Your task to perform on an android device: install app "NewsBreak: Local News & Alerts" Image 0: 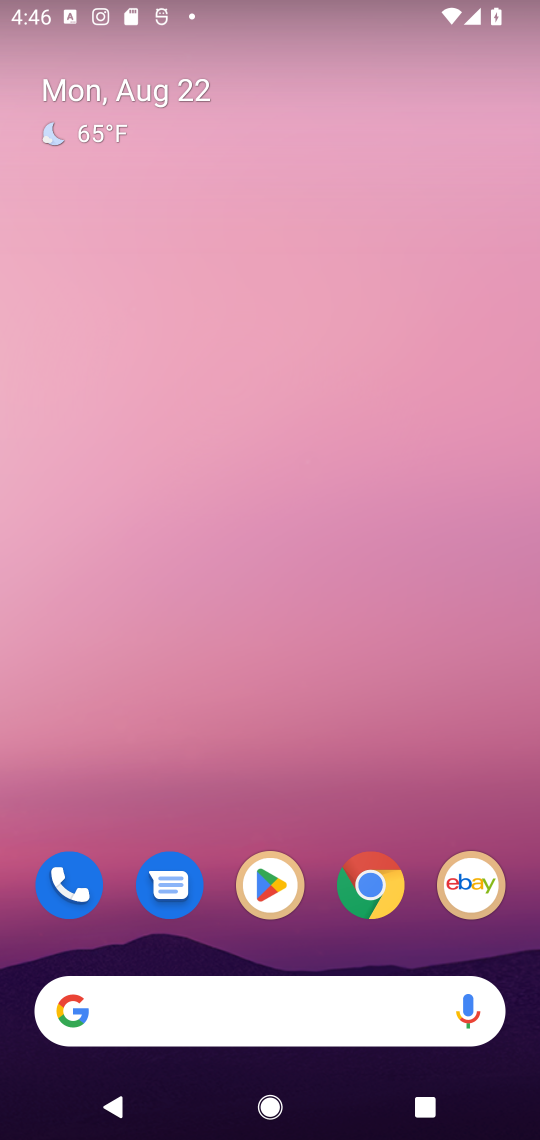
Step 0: press home button
Your task to perform on an android device: install app "NewsBreak: Local News & Alerts" Image 1: 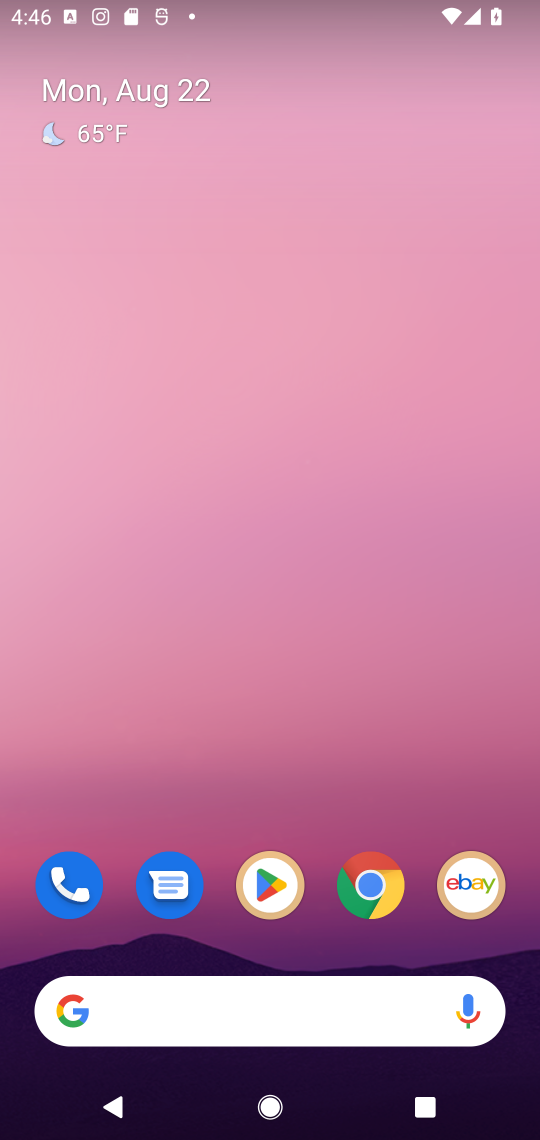
Step 1: click (268, 876)
Your task to perform on an android device: install app "NewsBreak: Local News & Alerts" Image 2: 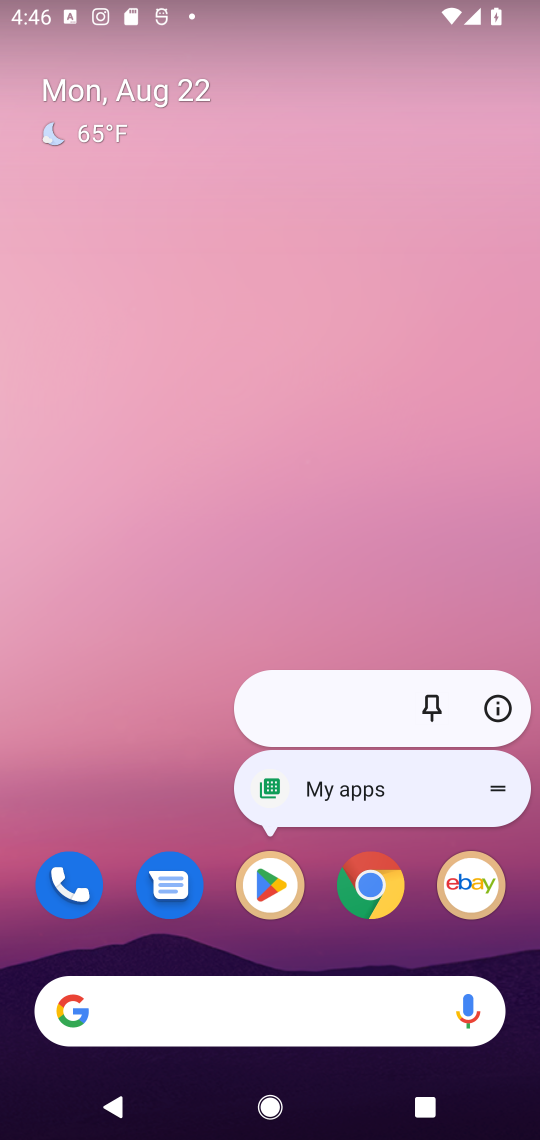
Step 2: click (268, 876)
Your task to perform on an android device: install app "NewsBreak: Local News & Alerts" Image 3: 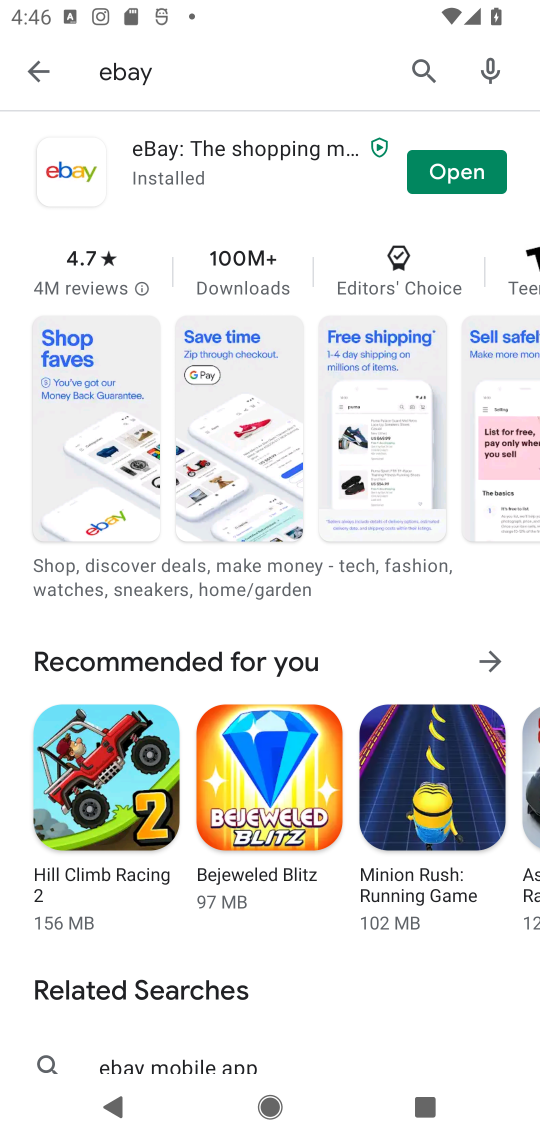
Step 3: click (417, 71)
Your task to perform on an android device: install app "NewsBreak: Local News & Alerts" Image 4: 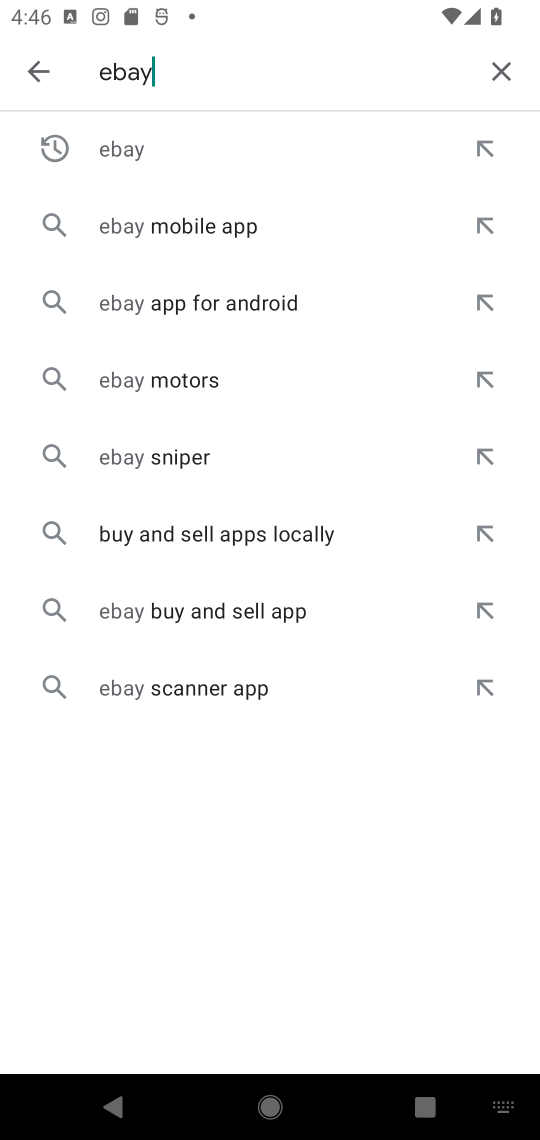
Step 4: click (503, 66)
Your task to perform on an android device: install app "NewsBreak: Local News & Alerts" Image 5: 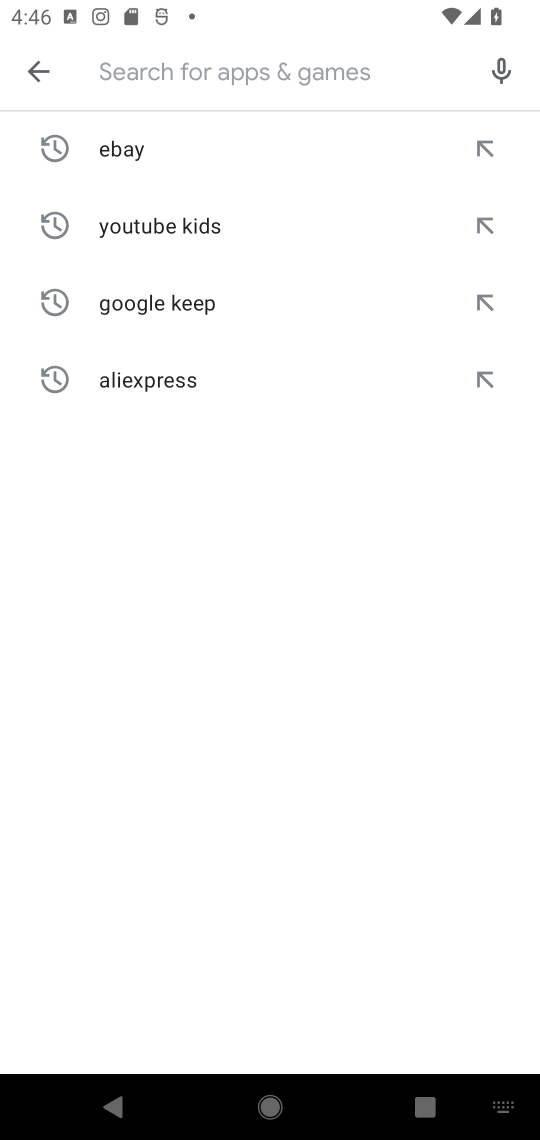
Step 5: type "NewsBreak: Local News & Alerts"
Your task to perform on an android device: install app "NewsBreak: Local News & Alerts" Image 6: 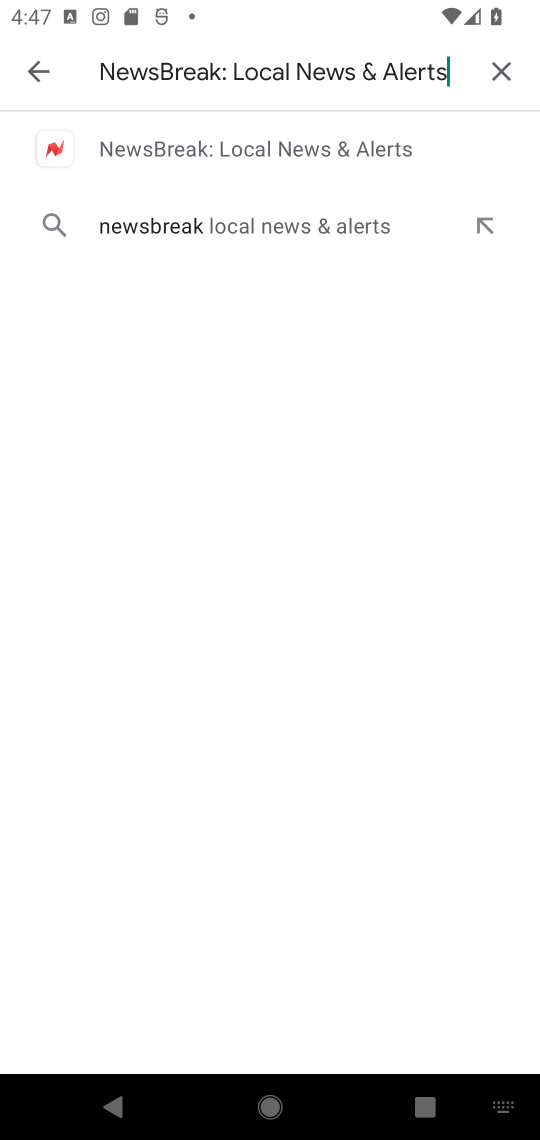
Step 6: click (270, 143)
Your task to perform on an android device: install app "NewsBreak: Local News & Alerts" Image 7: 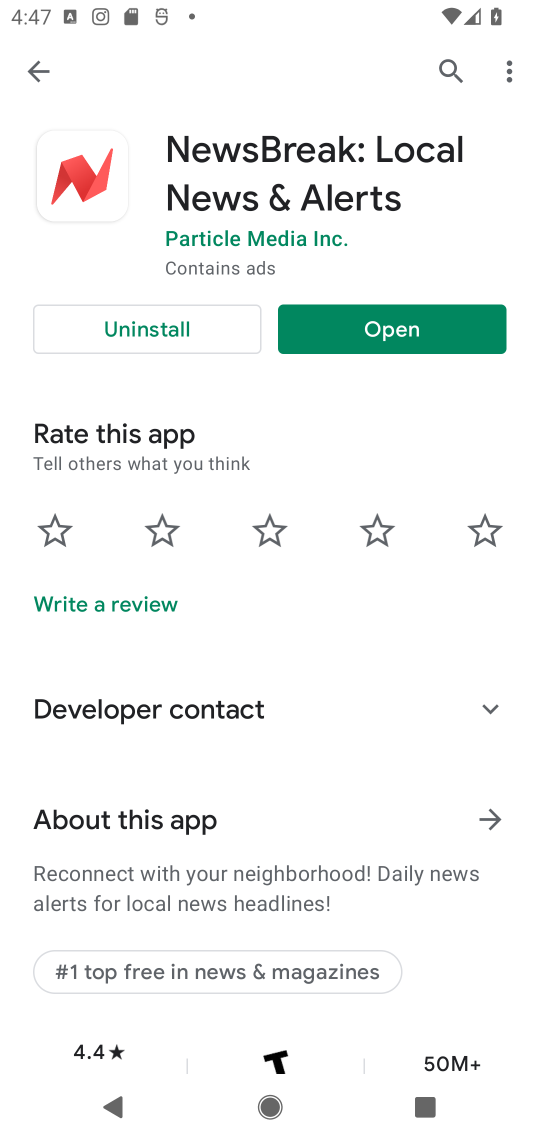
Step 7: click (395, 323)
Your task to perform on an android device: install app "NewsBreak: Local News & Alerts" Image 8: 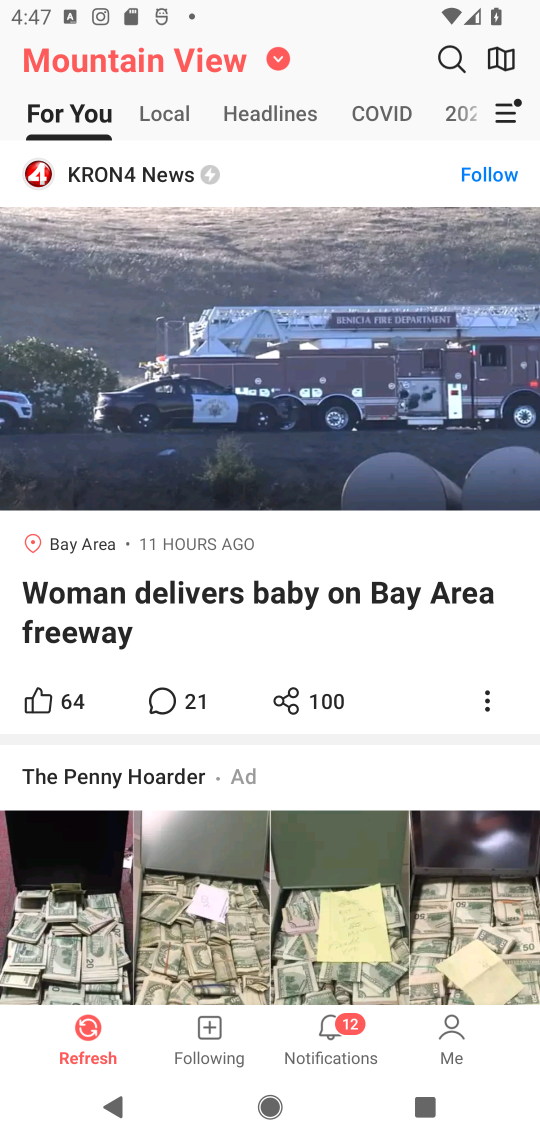
Step 8: task complete